Your task to perform on an android device: toggle translation in the chrome app Image 0: 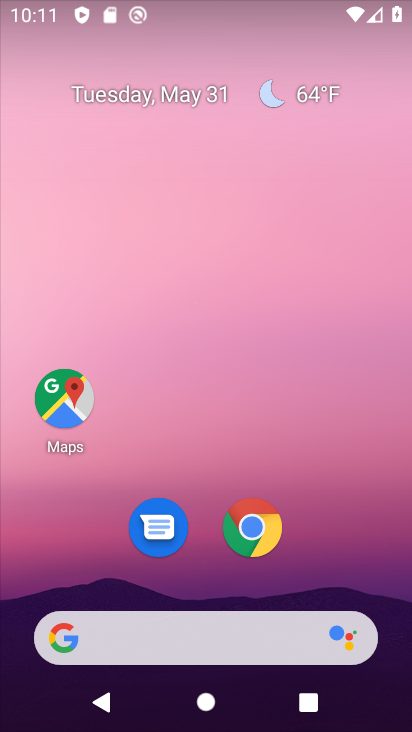
Step 0: click (258, 511)
Your task to perform on an android device: toggle translation in the chrome app Image 1: 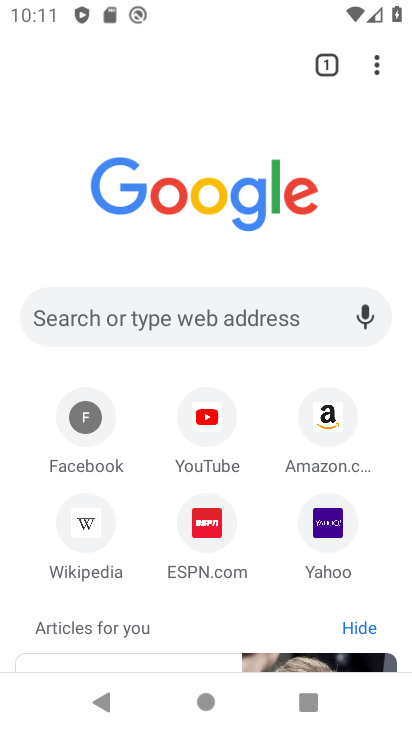
Step 1: click (373, 65)
Your task to perform on an android device: toggle translation in the chrome app Image 2: 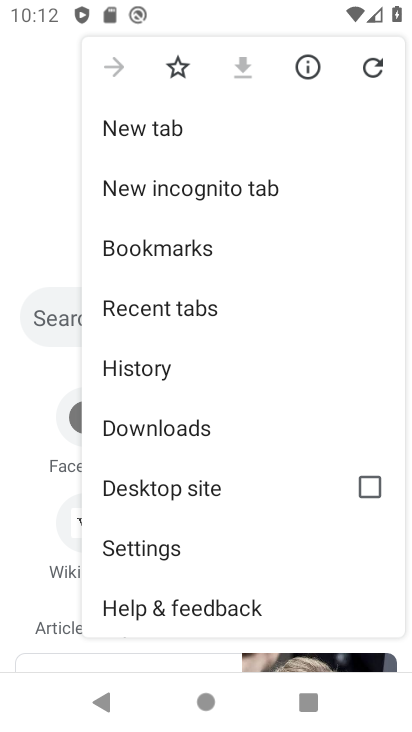
Step 2: click (138, 540)
Your task to perform on an android device: toggle translation in the chrome app Image 3: 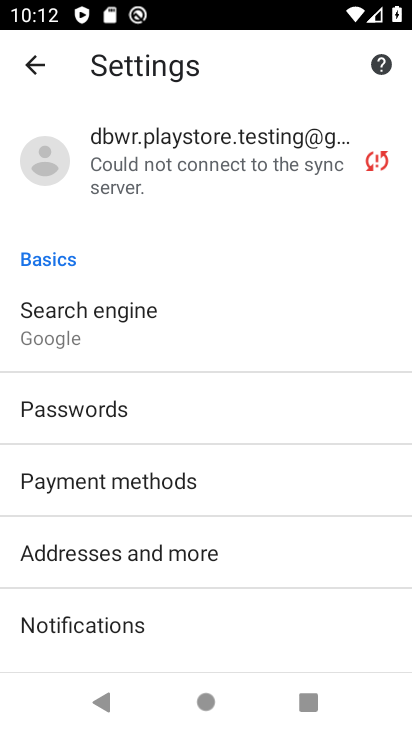
Step 3: drag from (211, 550) to (315, 13)
Your task to perform on an android device: toggle translation in the chrome app Image 4: 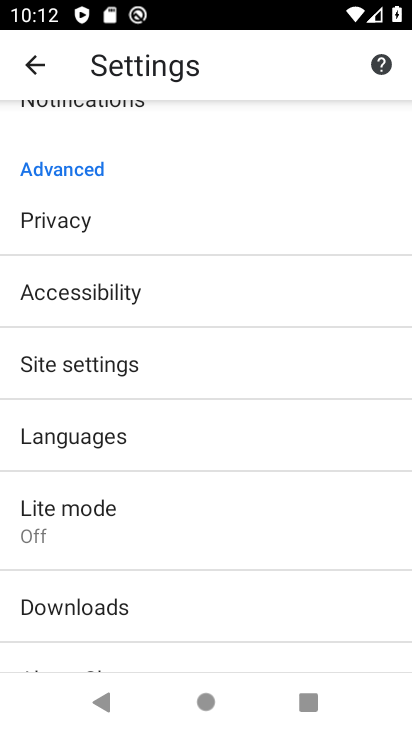
Step 4: click (164, 437)
Your task to perform on an android device: toggle translation in the chrome app Image 5: 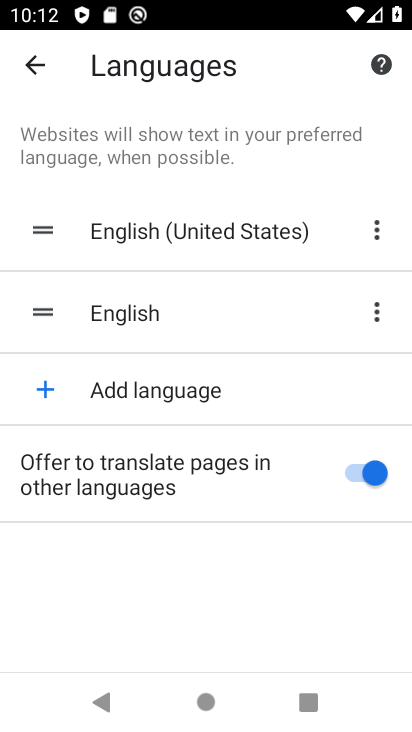
Step 5: click (366, 476)
Your task to perform on an android device: toggle translation in the chrome app Image 6: 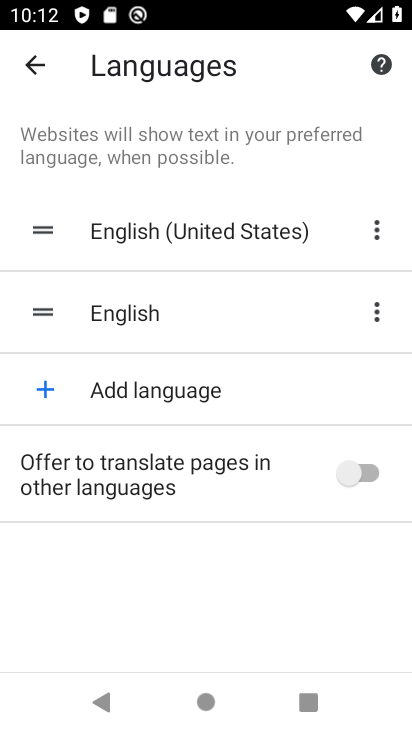
Step 6: task complete